Your task to perform on an android device: Go to battery settings Image 0: 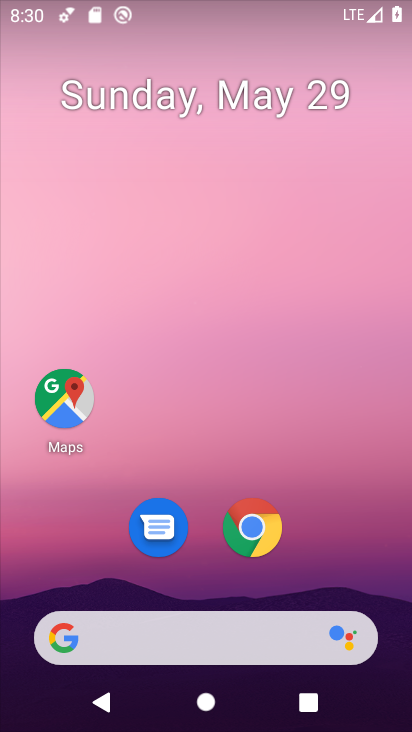
Step 0: drag from (211, 580) to (224, 24)
Your task to perform on an android device: Go to battery settings Image 1: 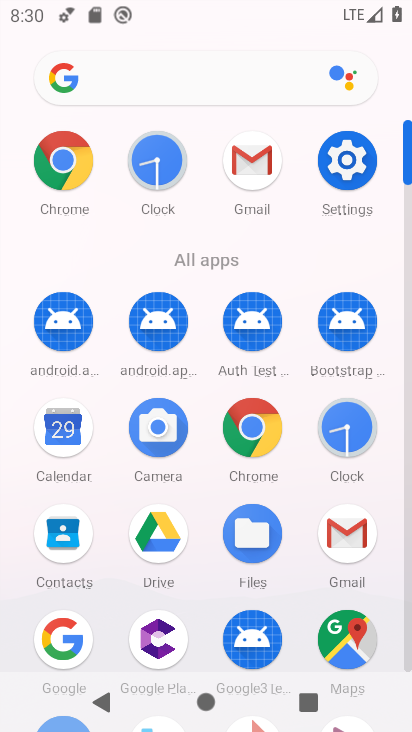
Step 1: click (345, 152)
Your task to perform on an android device: Go to battery settings Image 2: 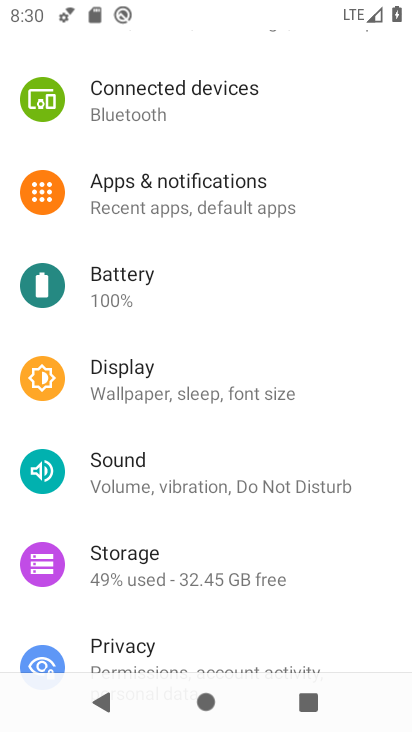
Step 2: click (168, 282)
Your task to perform on an android device: Go to battery settings Image 3: 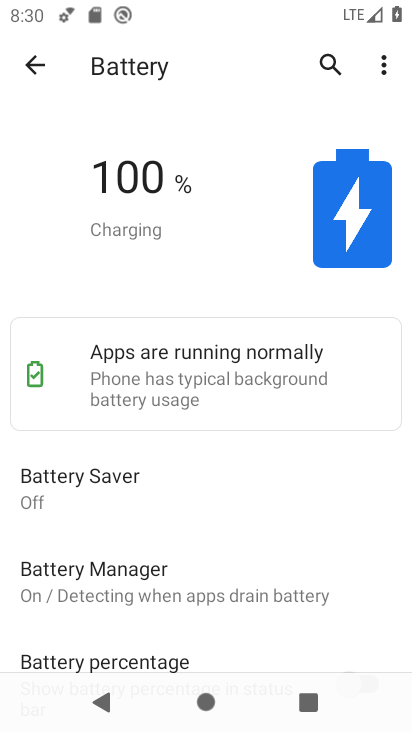
Step 3: task complete